Your task to perform on an android device: Go to accessibility settings Image 0: 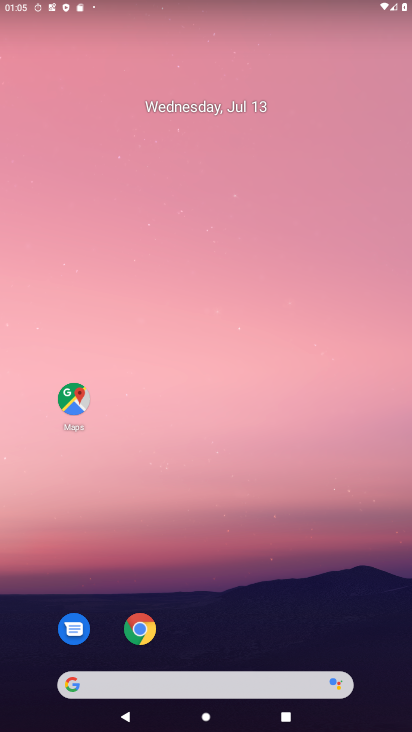
Step 0: drag from (207, 646) to (209, 215)
Your task to perform on an android device: Go to accessibility settings Image 1: 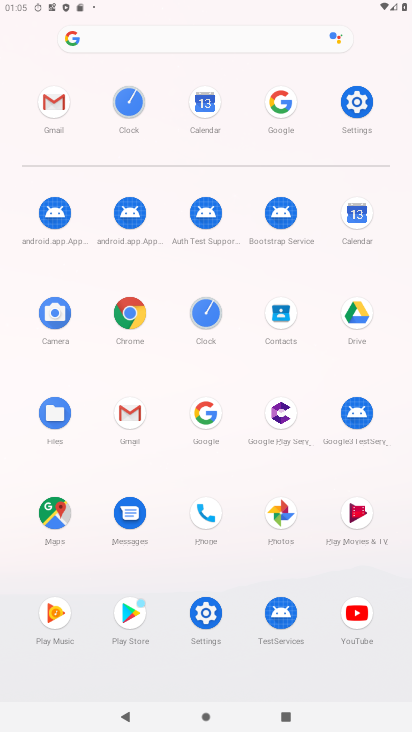
Step 1: click (341, 104)
Your task to perform on an android device: Go to accessibility settings Image 2: 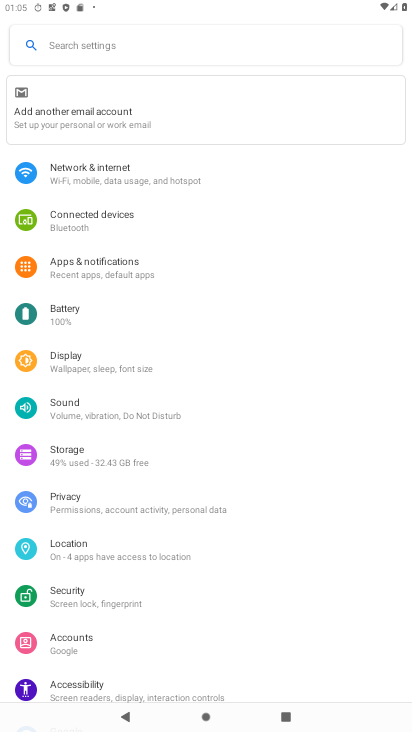
Step 2: drag from (135, 628) to (184, 264)
Your task to perform on an android device: Go to accessibility settings Image 3: 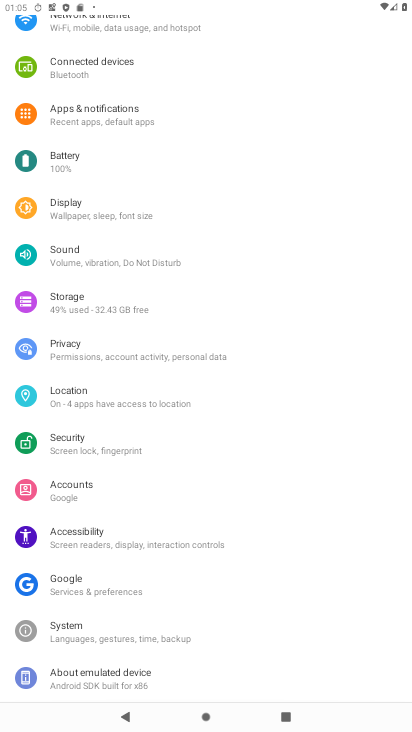
Step 3: click (136, 544)
Your task to perform on an android device: Go to accessibility settings Image 4: 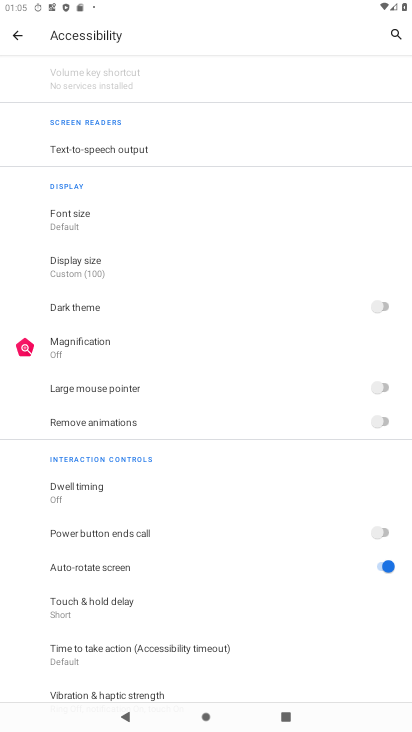
Step 4: task complete